Your task to perform on an android device: change the clock display to show seconds Image 0: 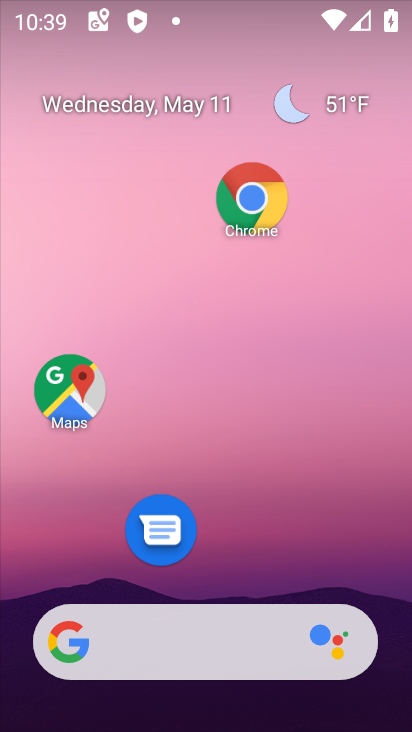
Step 0: drag from (247, 567) to (255, 203)
Your task to perform on an android device: change the clock display to show seconds Image 1: 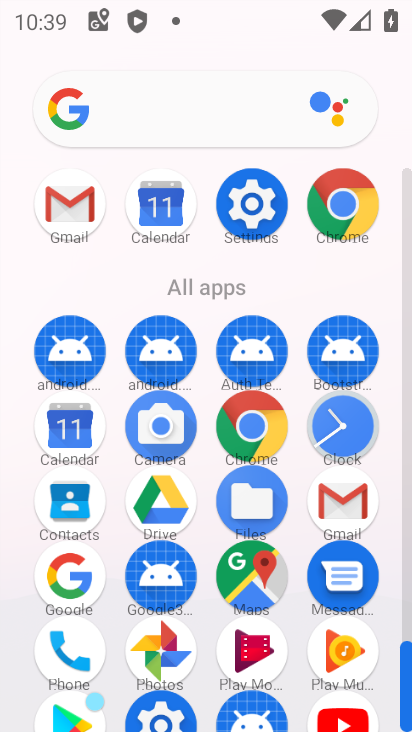
Step 1: click (337, 441)
Your task to perform on an android device: change the clock display to show seconds Image 2: 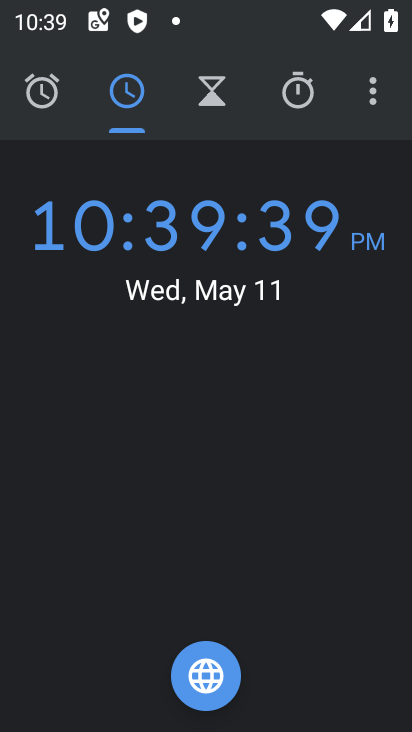
Step 2: click (376, 97)
Your task to perform on an android device: change the clock display to show seconds Image 3: 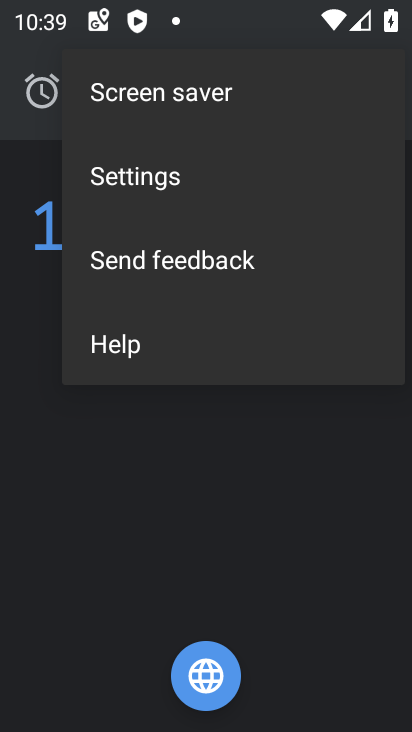
Step 3: click (145, 191)
Your task to perform on an android device: change the clock display to show seconds Image 4: 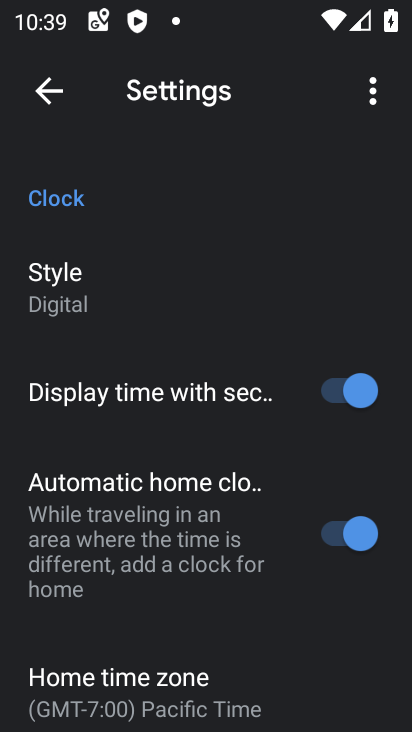
Step 4: task complete